Your task to perform on an android device: check storage Image 0: 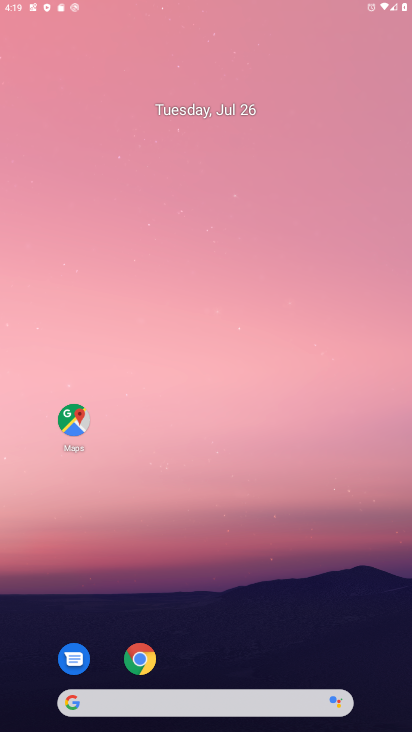
Step 0: press home button
Your task to perform on an android device: check storage Image 1: 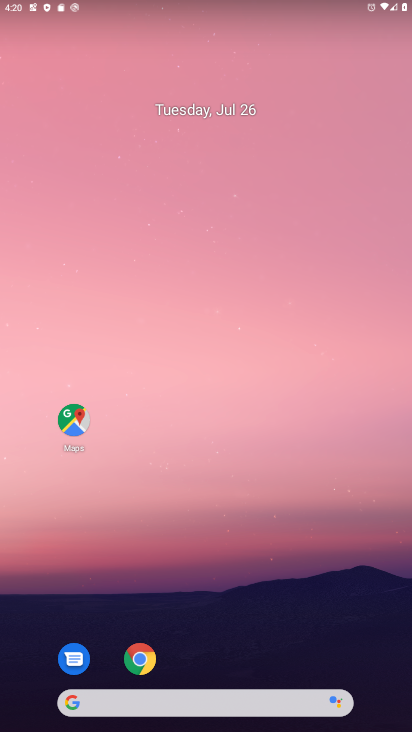
Step 1: drag from (221, 620) to (210, 128)
Your task to perform on an android device: check storage Image 2: 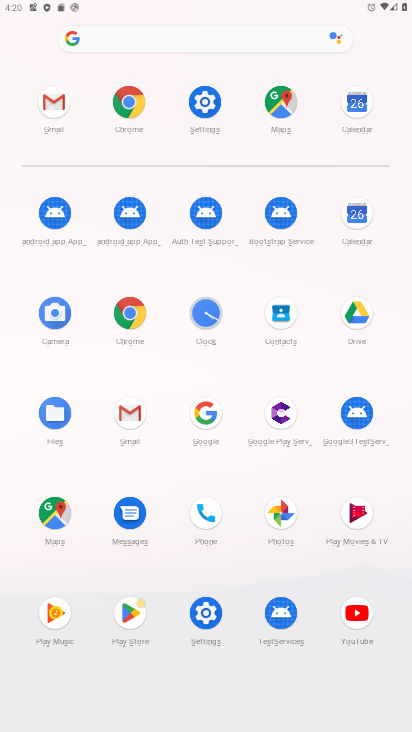
Step 2: click (209, 102)
Your task to perform on an android device: check storage Image 3: 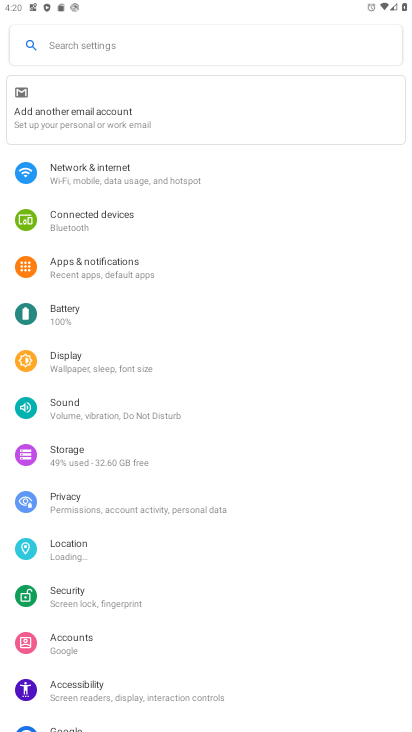
Step 3: click (73, 452)
Your task to perform on an android device: check storage Image 4: 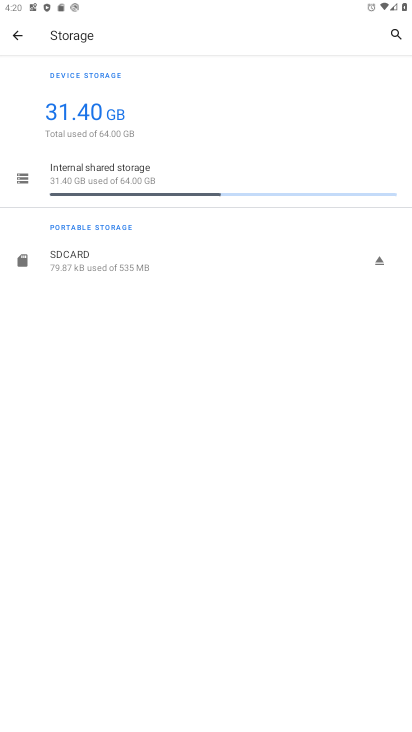
Step 4: task complete